Your task to perform on an android device: change text size in settings app Image 0: 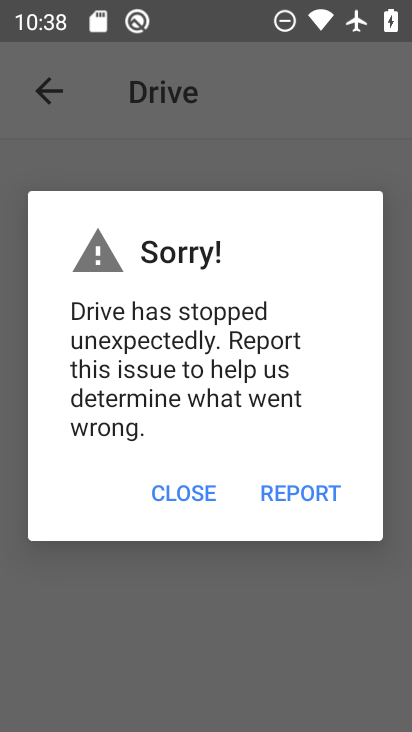
Step 0: press home button
Your task to perform on an android device: change text size in settings app Image 1: 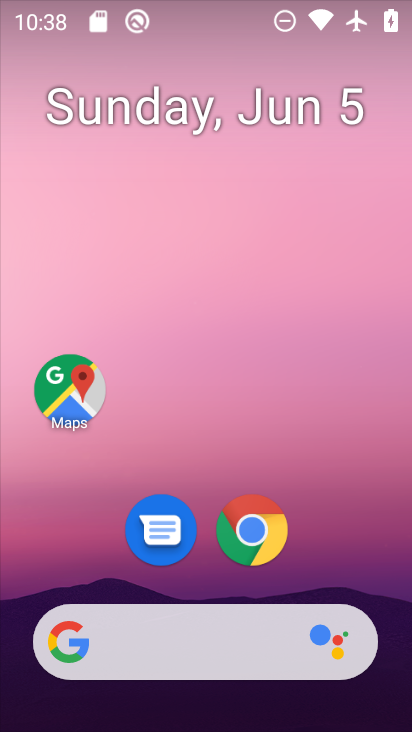
Step 1: drag from (392, 636) to (335, 180)
Your task to perform on an android device: change text size in settings app Image 2: 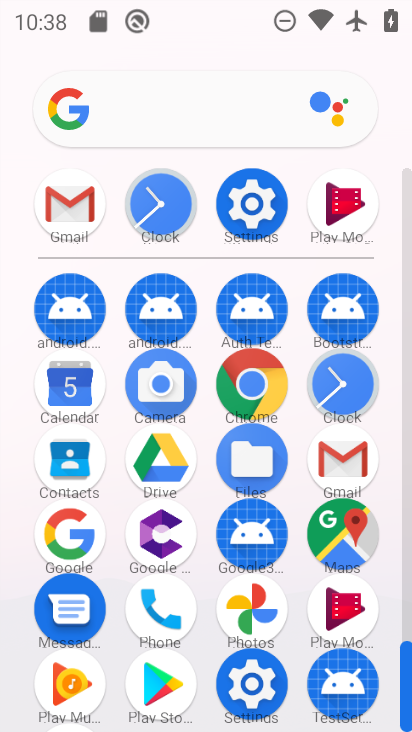
Step 2: click (253, 688)
Your task to perform on an android device: change text size in settings app Image 3: 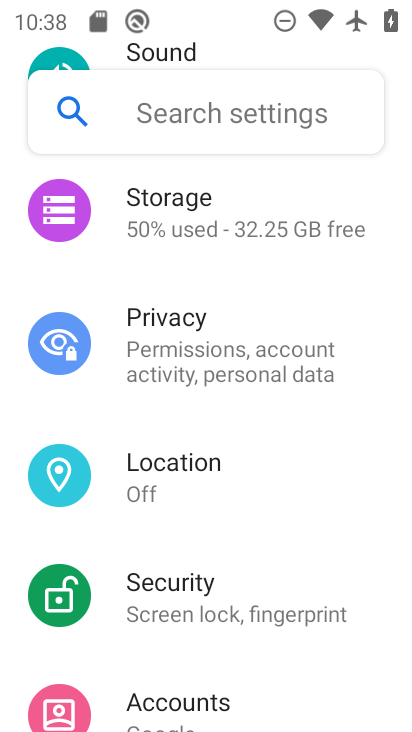
Step 3: drag from (304, 406) to (289, 647)
Your task to perform on an android device: change text size in settings app Image 4: 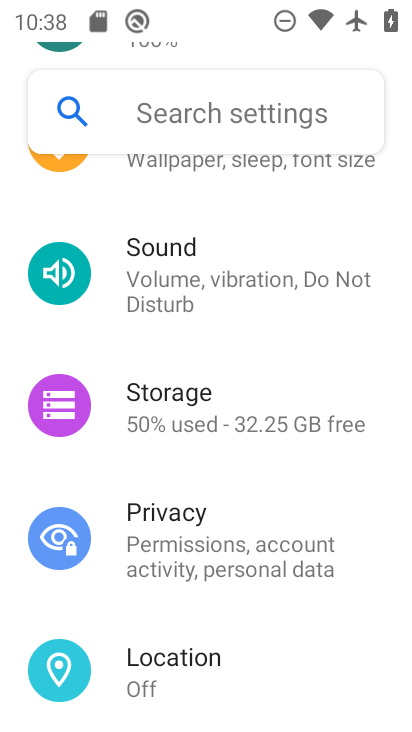
Step 4: drag from (327, 372) to (318, 568)
Your task to perform on an android device: change text size in settings app Image 5: 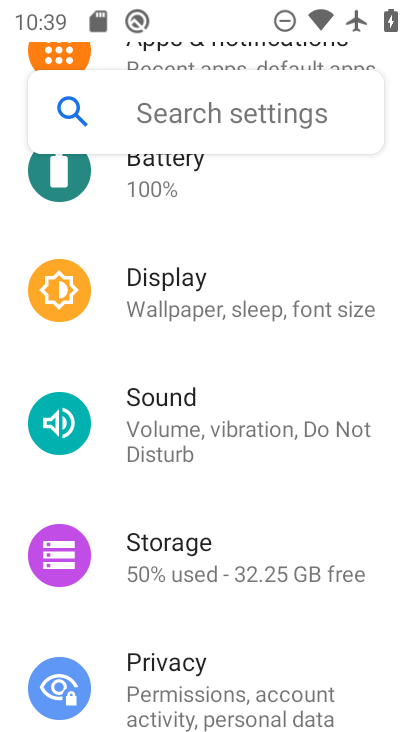
Step 5: click (178, 308)
Your task to perform on an android device: change text size in settings app Image 6: 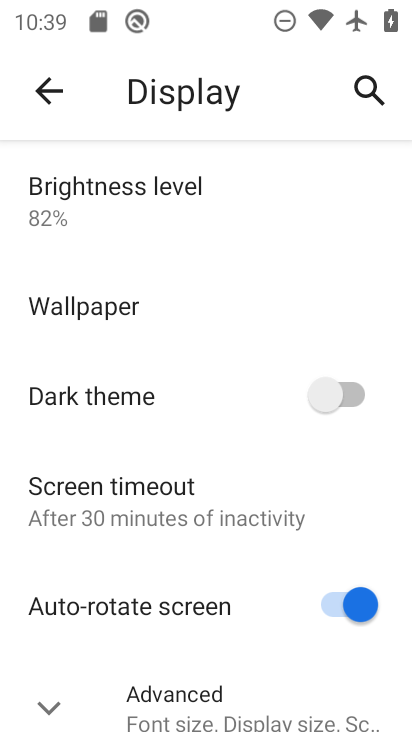
Step 6: drag from (263, 580) to (263, 205)
Your task to perform on an android device: change text size in settings app Image 7: 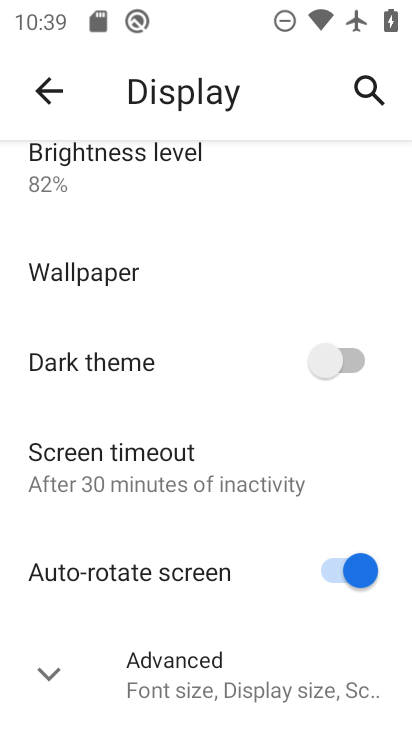
Step 7: click (47, 664)
Your task to perform on an android device: change text size in settings app Image 8: 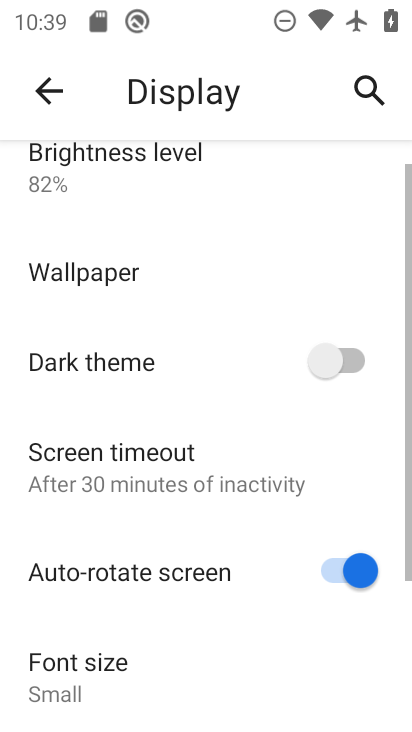
Step 8: drag from (284, 625) to (245, 235)
Your task to perform on an android device: change text size in settings app Image 9: 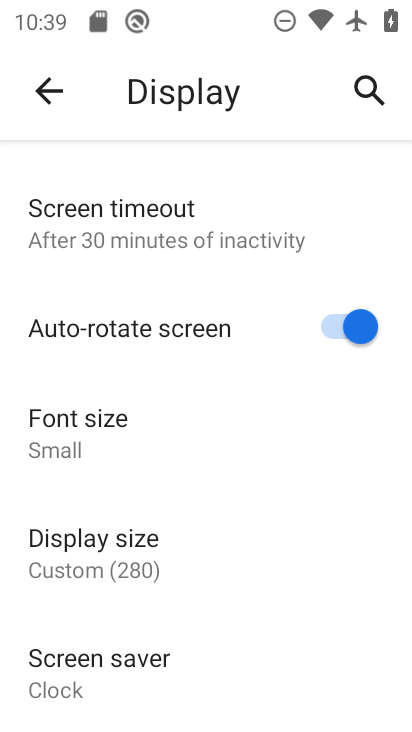
Step 9: drag from (247, 620) to (248, 442)
Your task to perform on an android device: change text size in settings app Image 10: 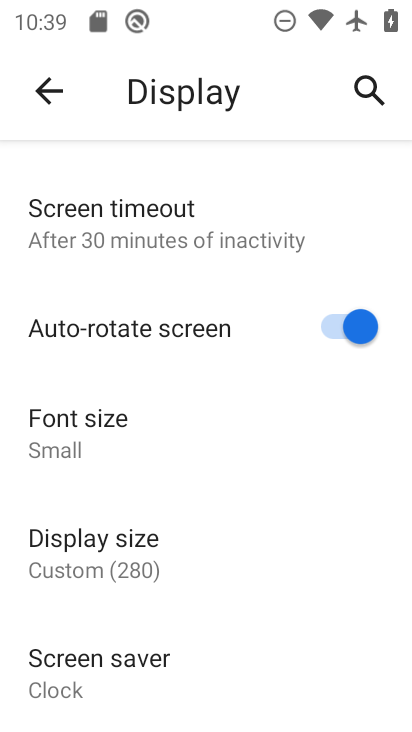
Step 10: click (38, 425)
Your task to perform on an android device: change text size in settings app Image 11: 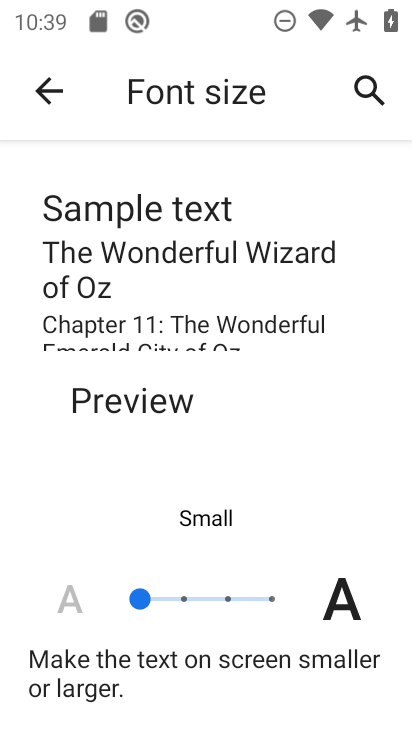
Step 11: click (184, 599)
Your task to perform on an android device: change text size in settings app Image 12: 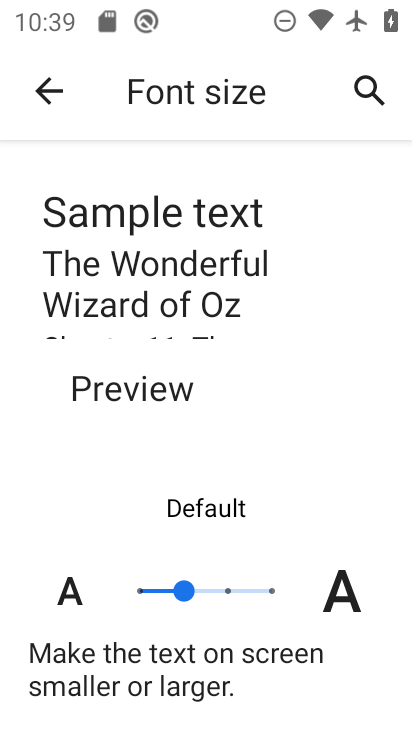
Step 12: task complete